Your task to perform on an android device: turn on bluetooth scan Image 0: 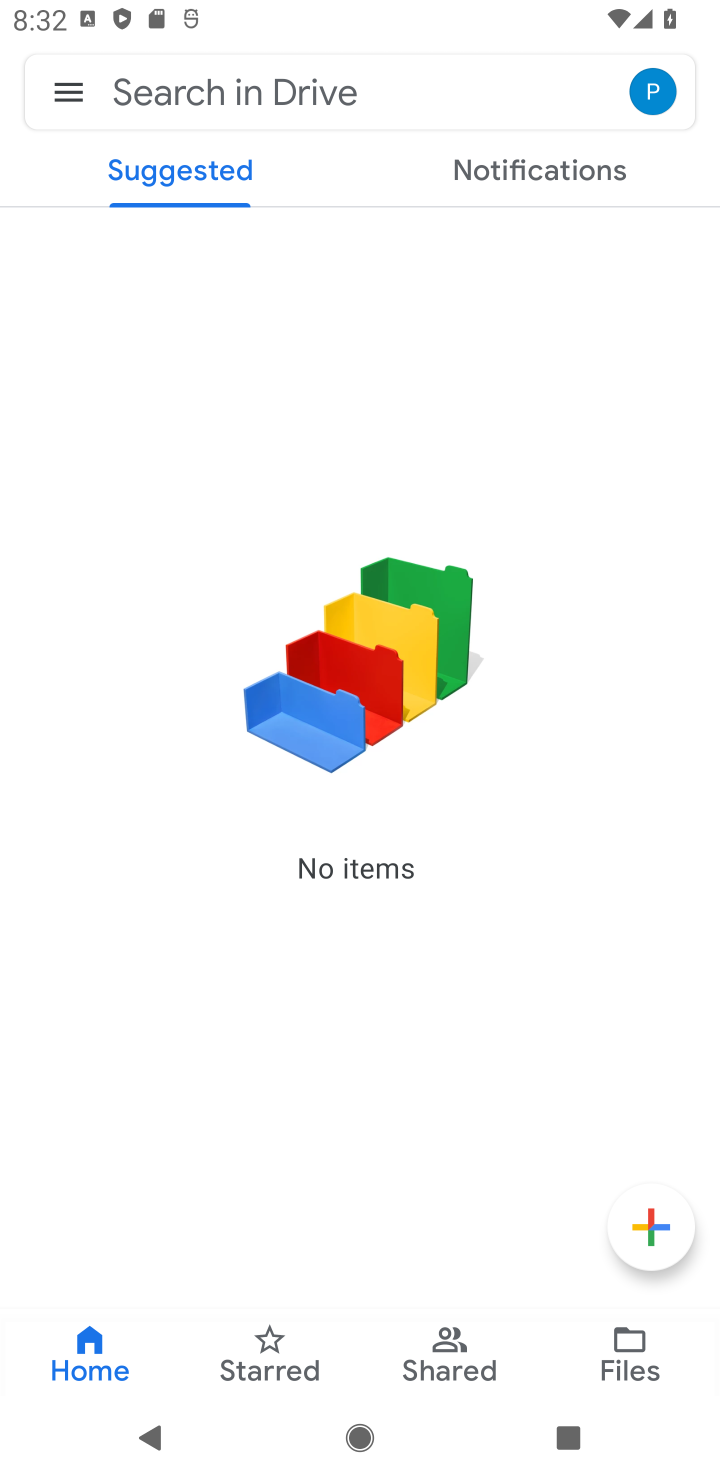
Step 0: press home button
Your task to perform on an android device: turn on bluetooth scan Image 1: 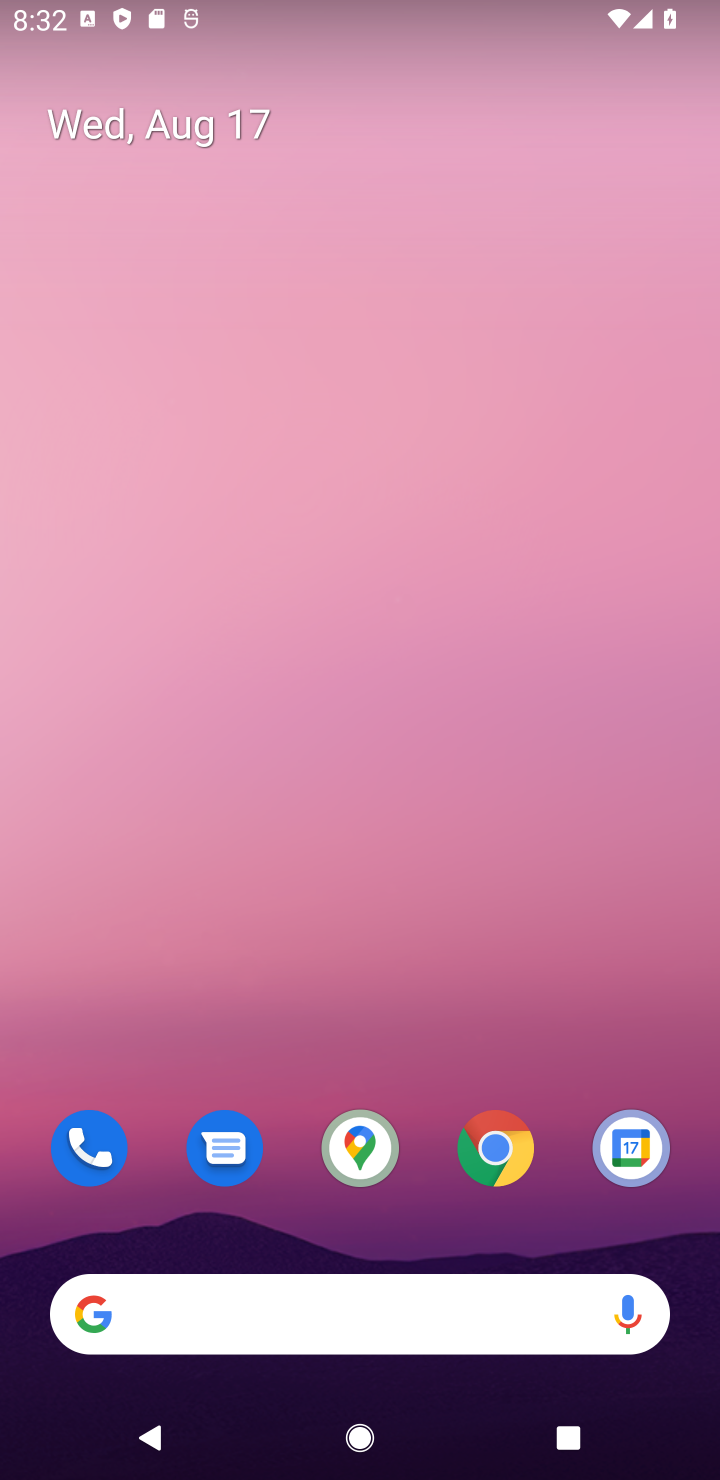
Step 1: drag from (581, 1230) to (580, 66)
Your task to perform on an android device: turn on bluetooth scan Image 2: 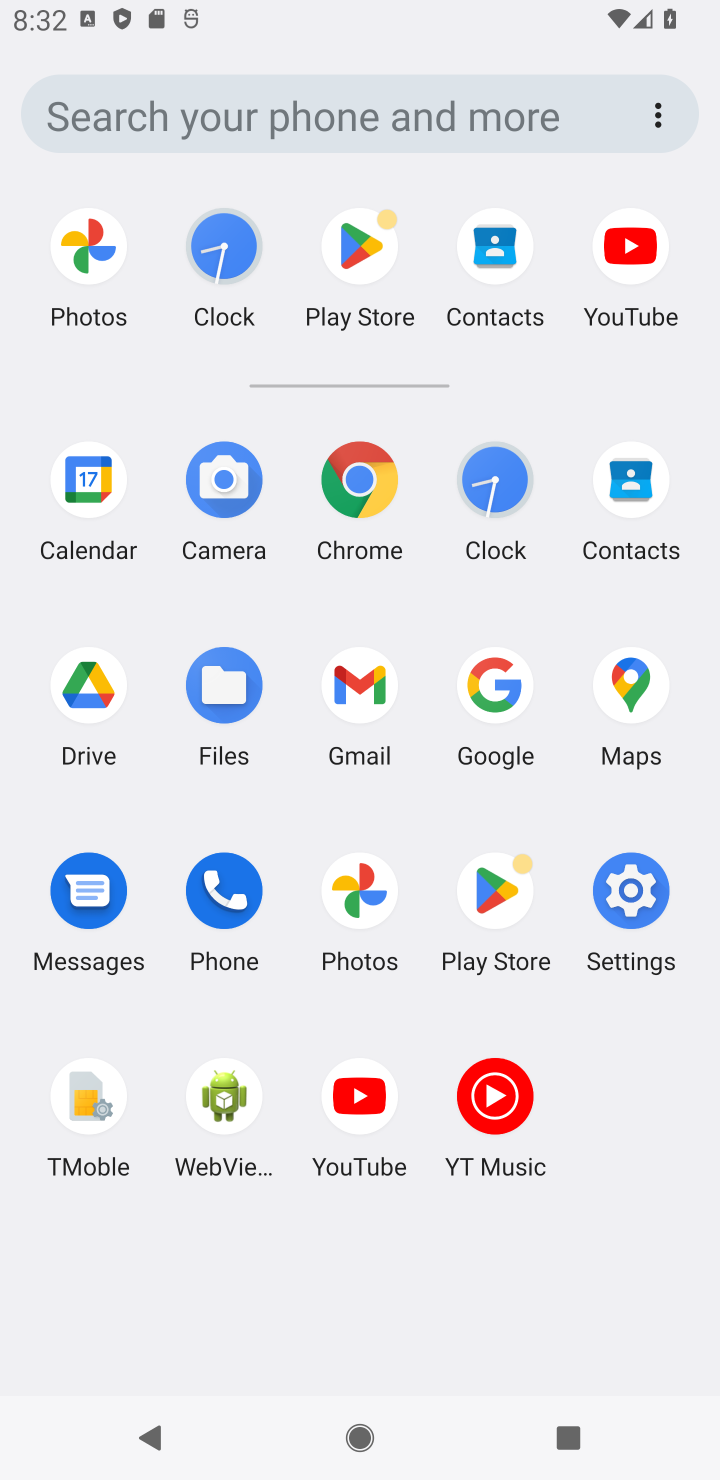
Step 2: click (627, 892)
Your task to perform on an android device: turn on bluetooth scan Image 3: 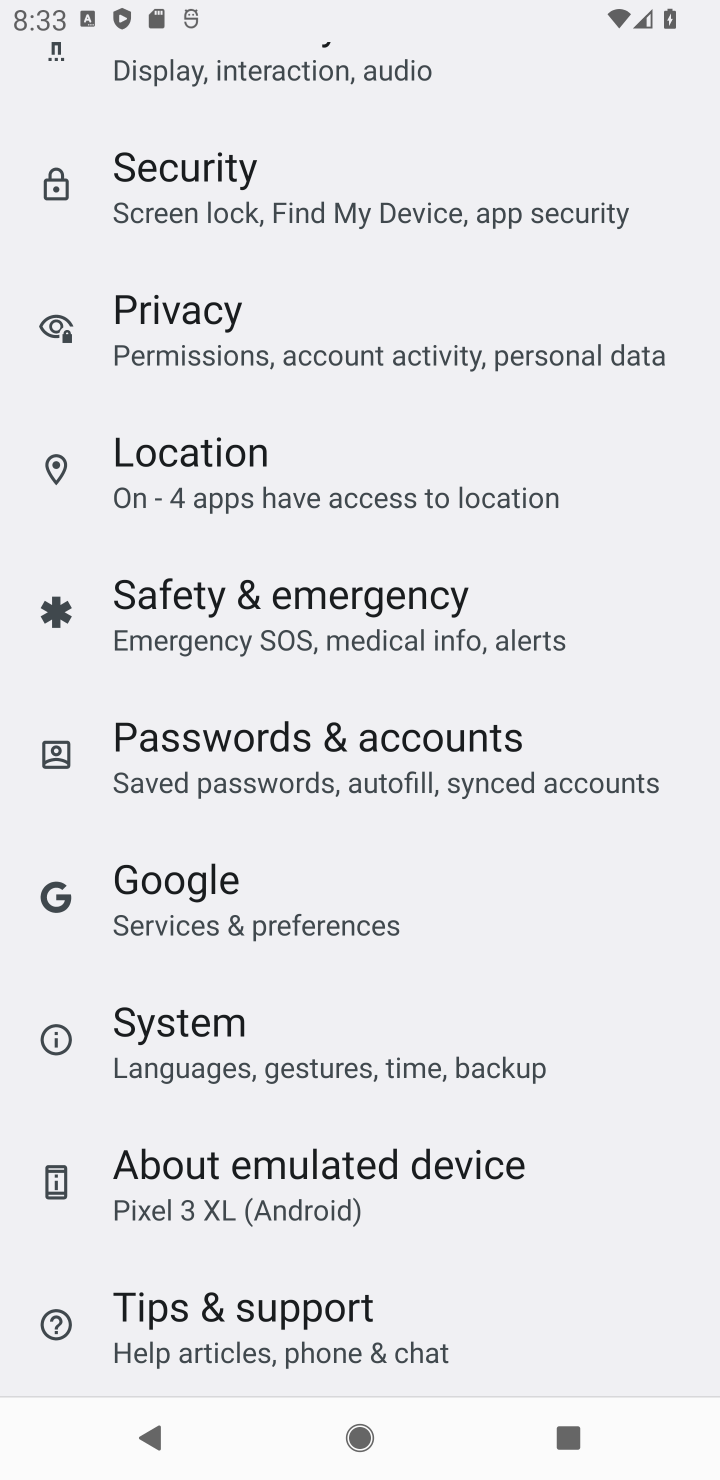
Step 3: click (196, 452)
Your task to perform on an android device: turn on bluetooth scan Image 4: 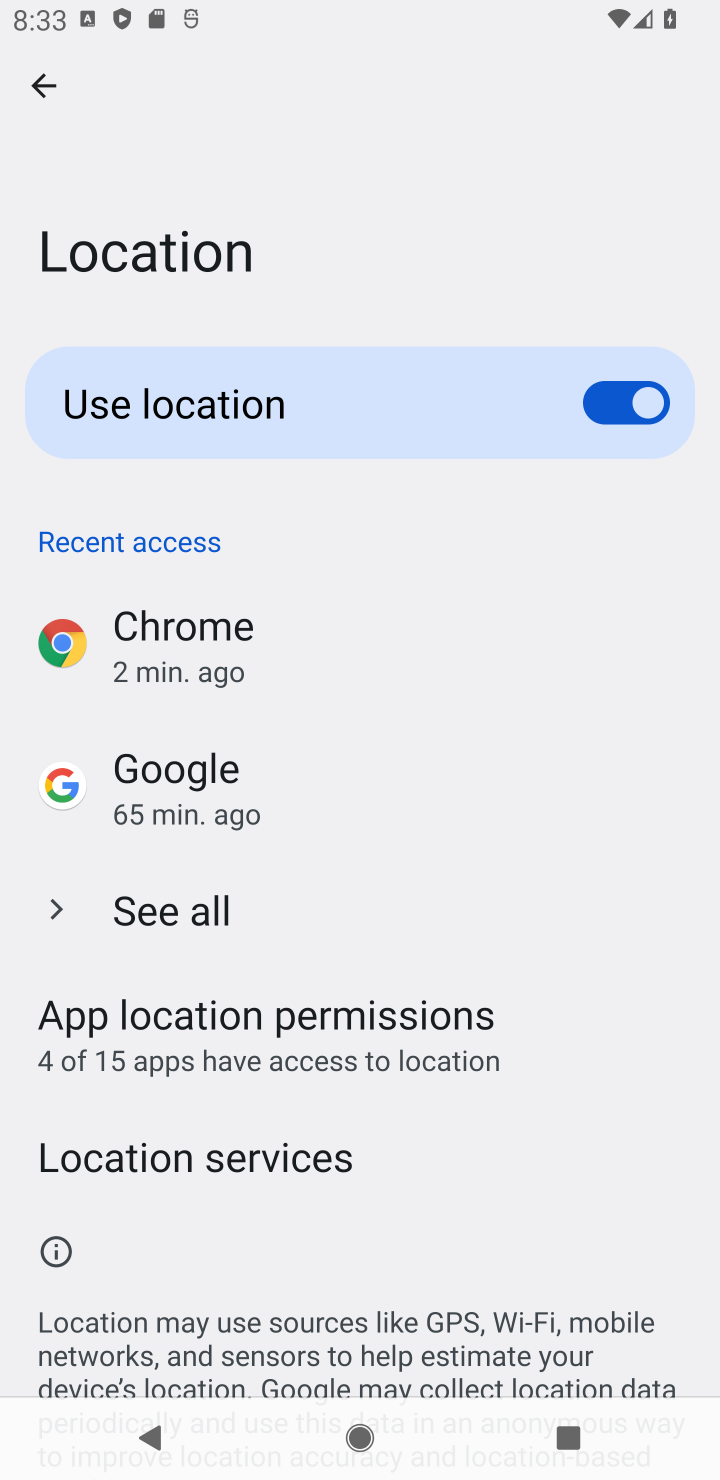
Step 4: click (196, 1155)
Your task to perform on an android device: turn on bluetooth scan Image 5: 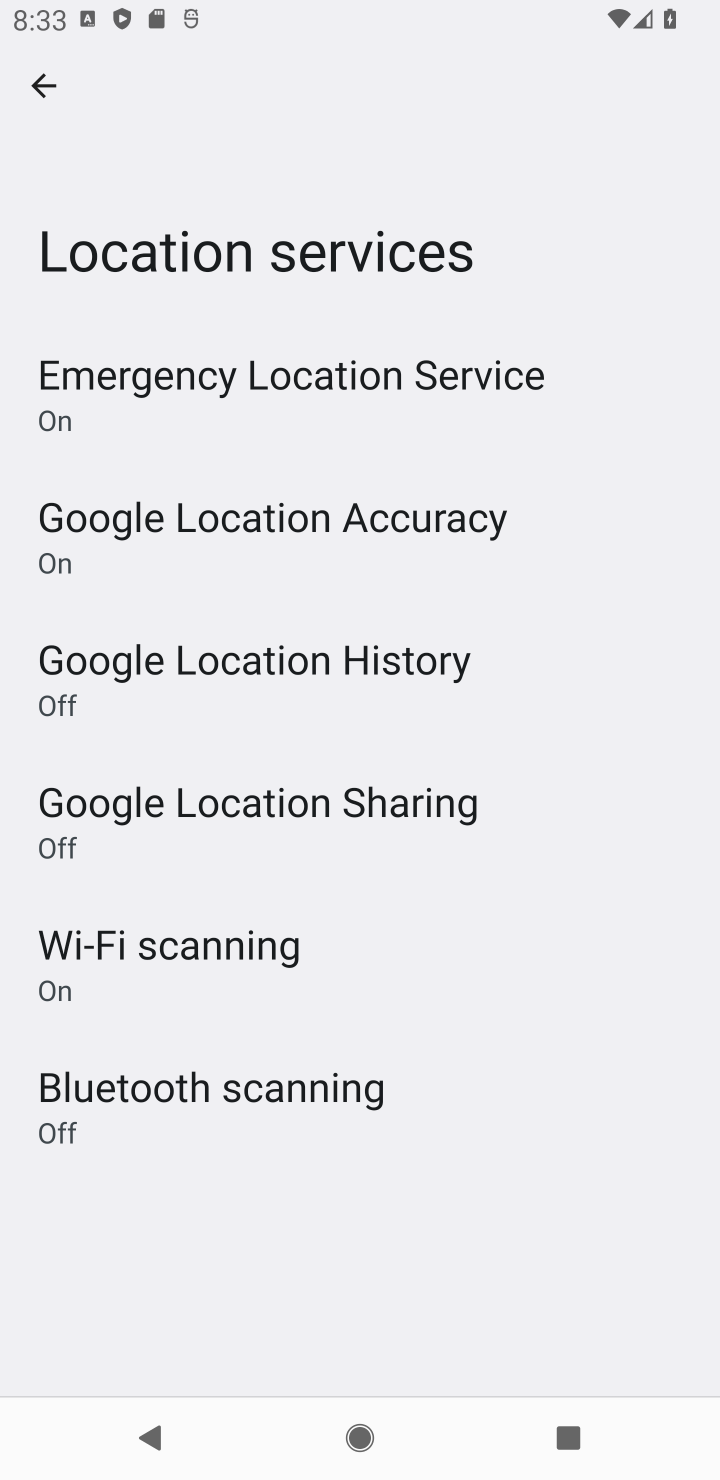
Step 5: click (181, 1096)
Your task to perform on an android device: turn on bluetooth scan Image 6: 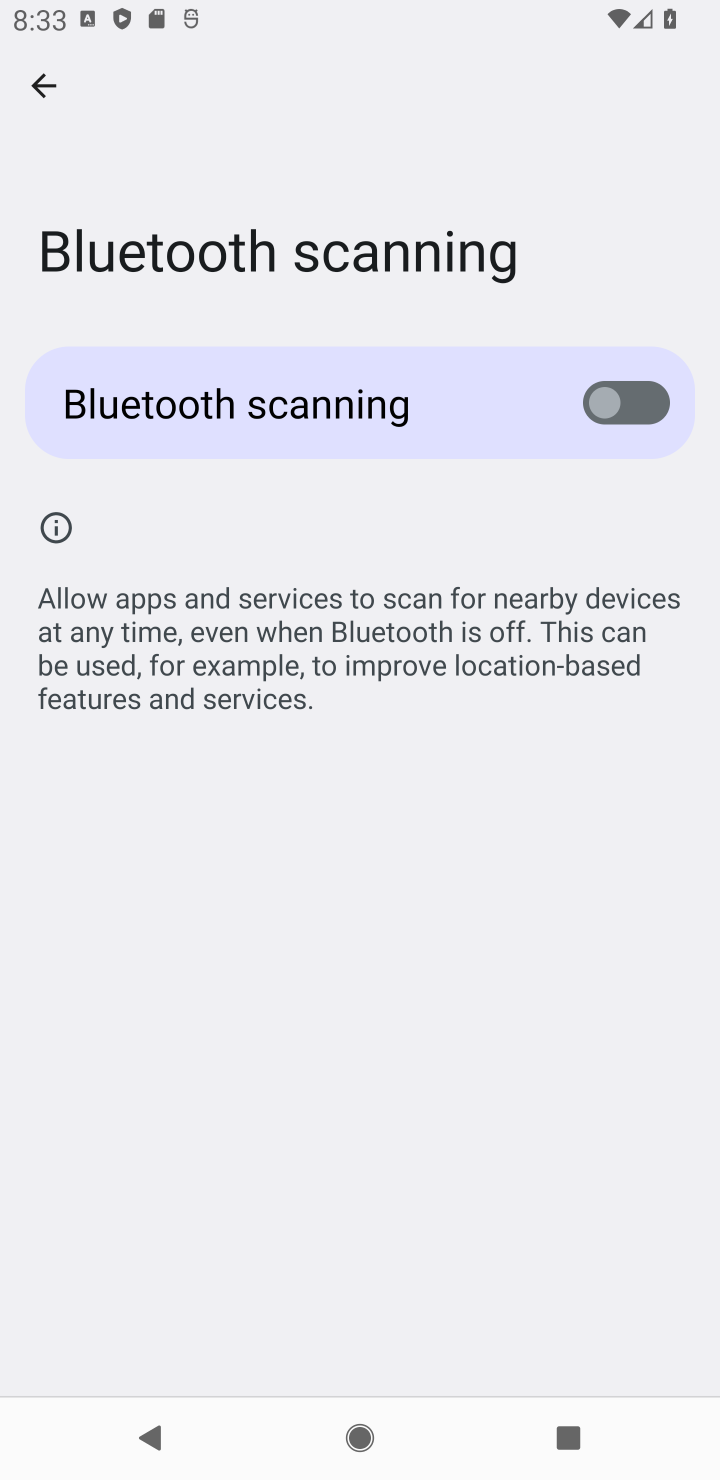
Step 6: click (642, 416)
Your task to perform on an android device: turn on bluetooth scan Image 7: 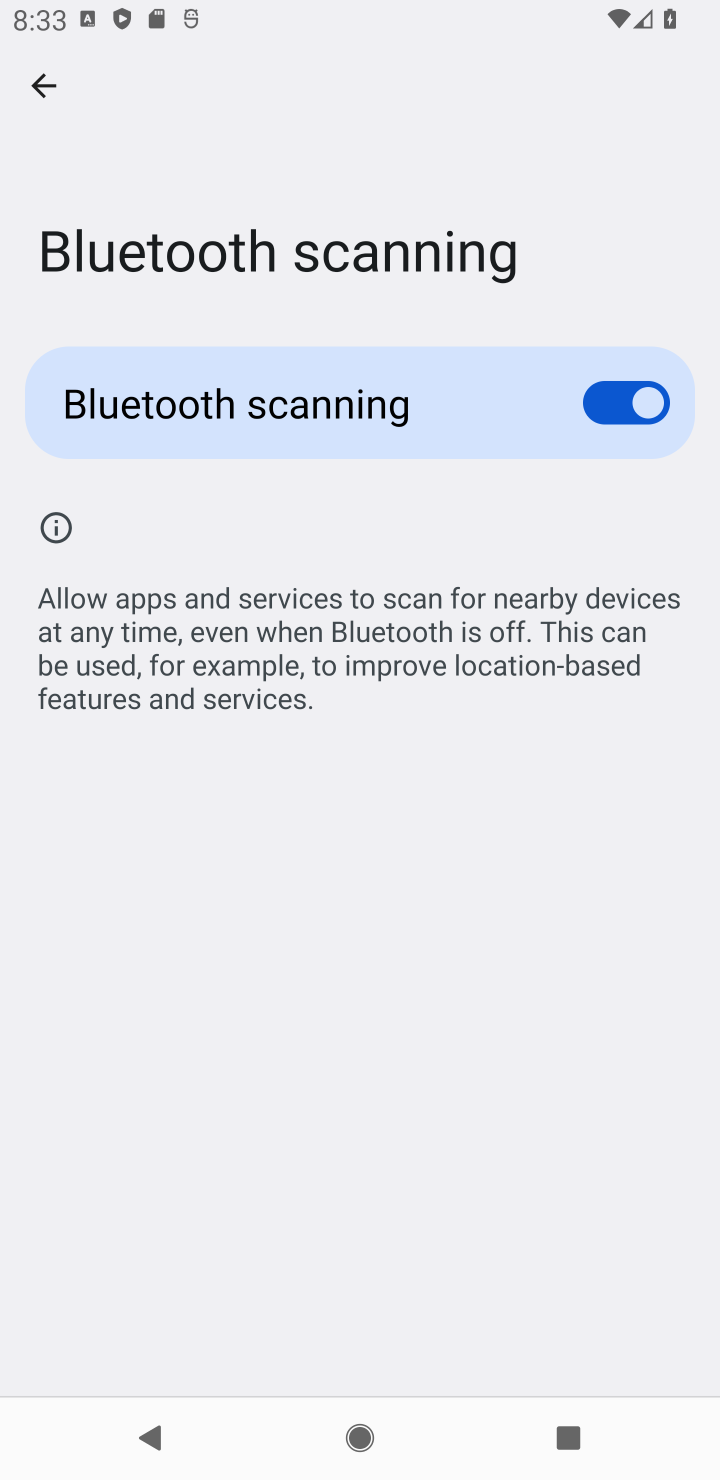
Step 7: task complete